Your task to perform on an android device: check storage Image 0: 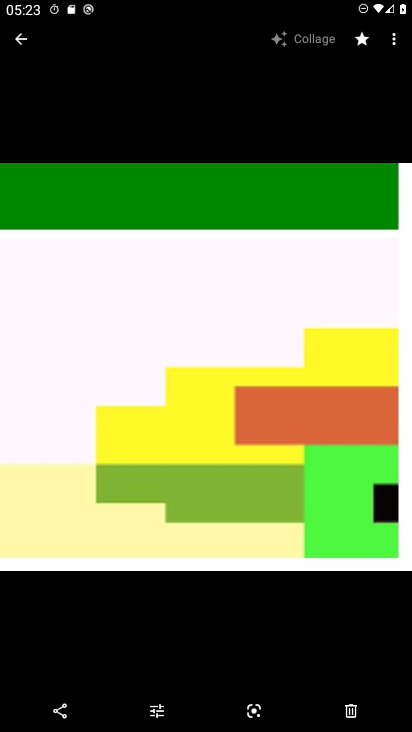
Step 0: press home button
Your task to perform on an android device: check storage Image 1: 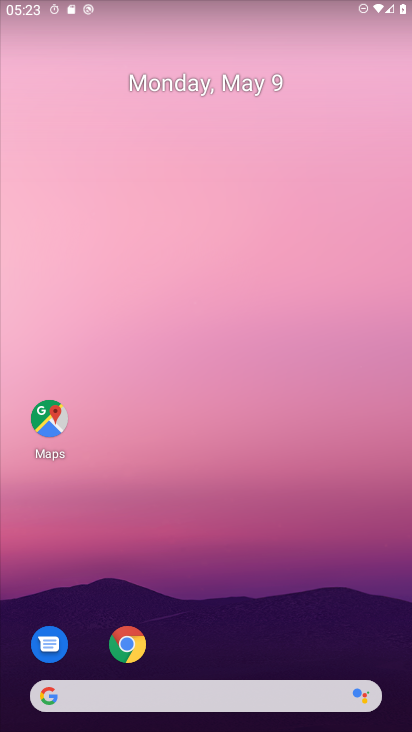
Step 1: drag from (236, 552) to (265, 0)
Your task to perform on an android device: check storage Image 2: 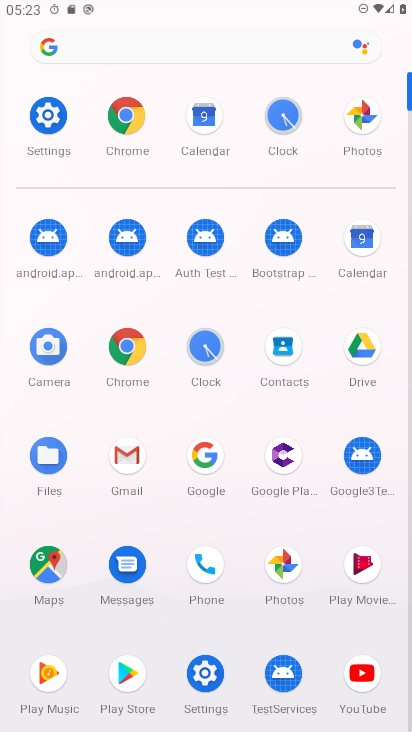
Step 2: click (47, 114)
Your task to perform on an android device: check storage Image 3: 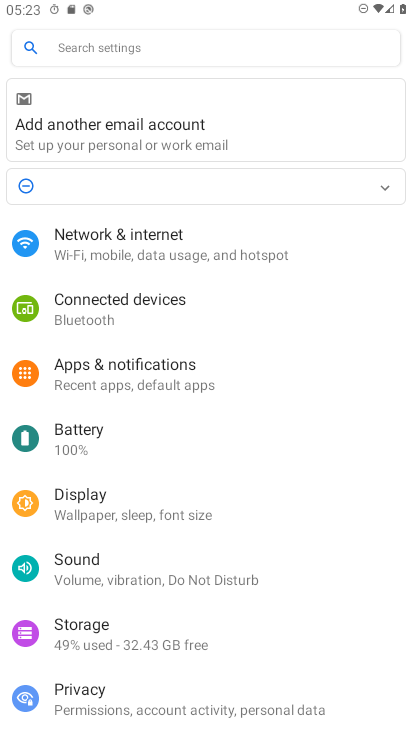
Step 3: click (78, 625)
Your task to perform on an android device: check storage Image 4: 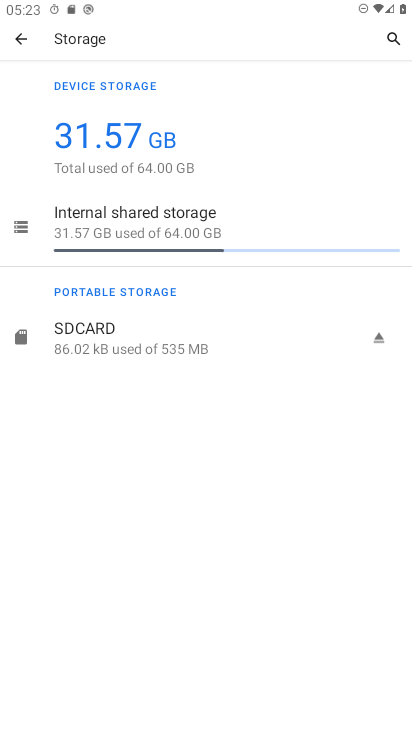
Step 4: task complete